Your task to perform on an android device: Go to calendar. Show me events next week Image 0: 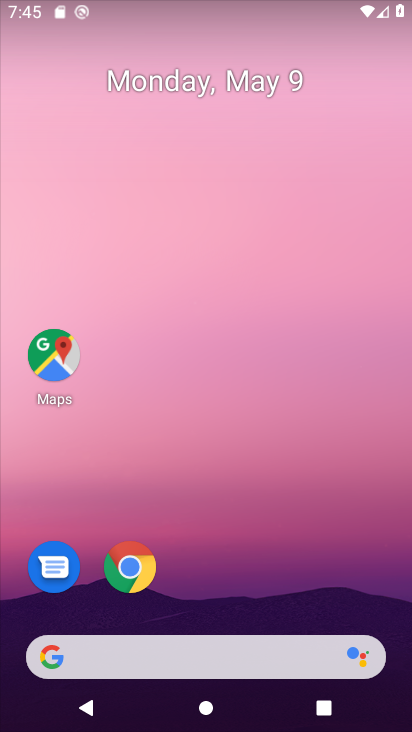
Step 0: drag from (196, 592) to (296, 110)
Your task to perform on an android device: Go to calendar. Show me events next week Image 1: 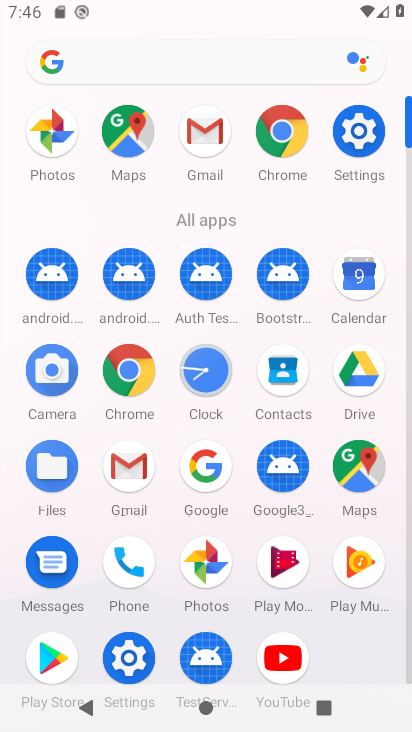
Step 1: click (351, 270)
Your task to perform on an android device: Go to calendar. Show me events next week Image 2: 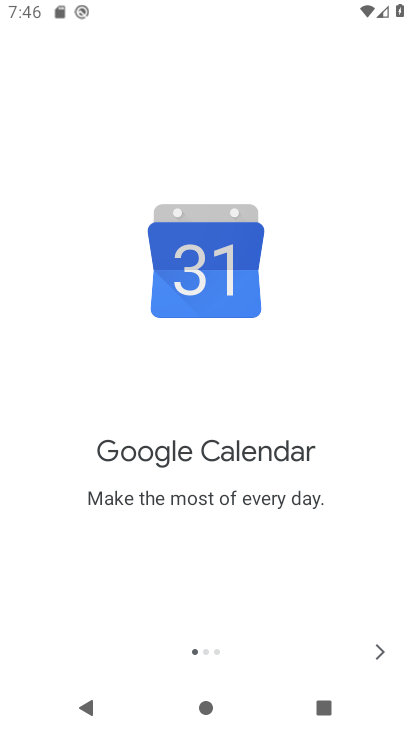
Step 2: click (382, 652)
Your task to perform on an android device: Go to calendar. Show me events next week Image 3: 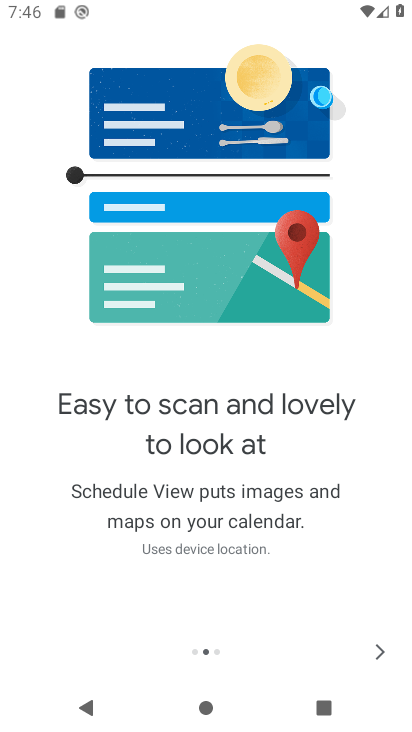
Step 3: click (383, 652)
Your task to perform on an android device: Go to calendar. Show me events next week Image 4: 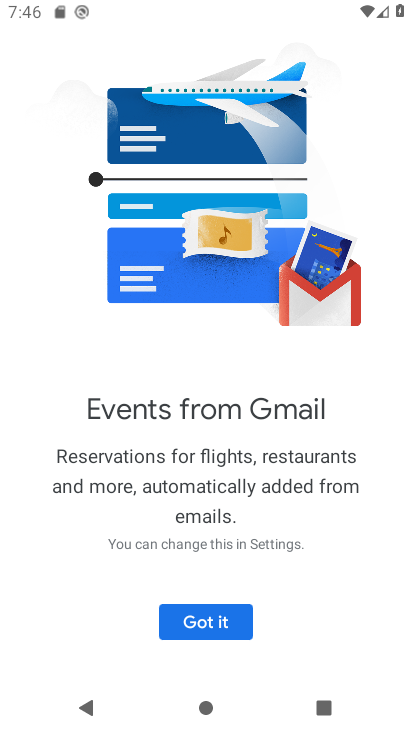
Step 4: click (224, 620)
Your task to perform on an android device: Go to calendar. Show me events next week Image 5: 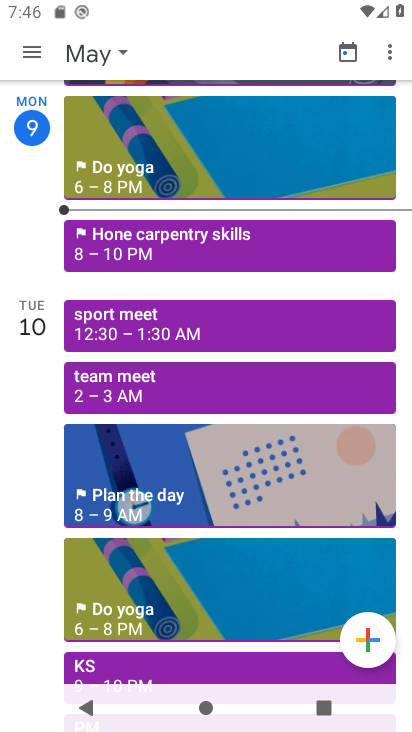
Step 5: click (81, 62)
Your task to perform on an android device: Go to calendar. Show me events next week Image 6: 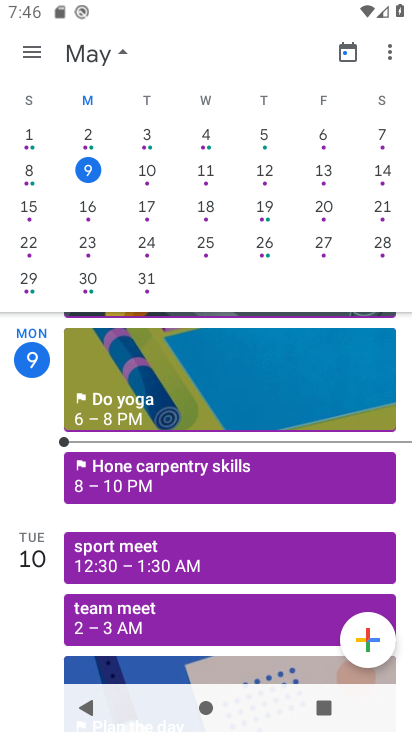
Step 6: click (34, 213)
Your task to perform on an android device: Go to calendar. Show me events next week Image 7: 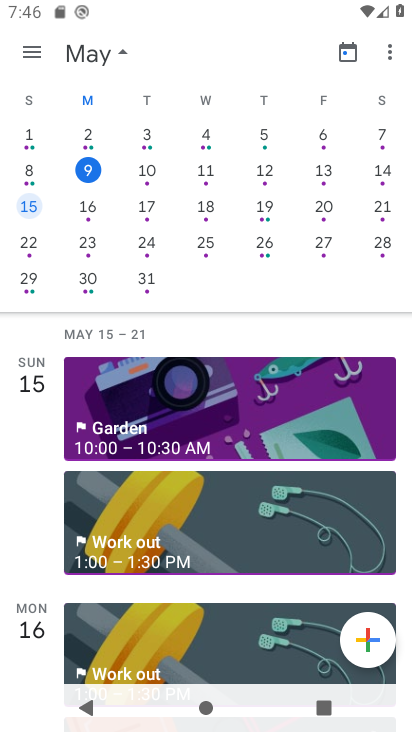
Step 7: click (90, 216)
Your task to perform on an android device: Go to calendar. Show me events next week Image 8: 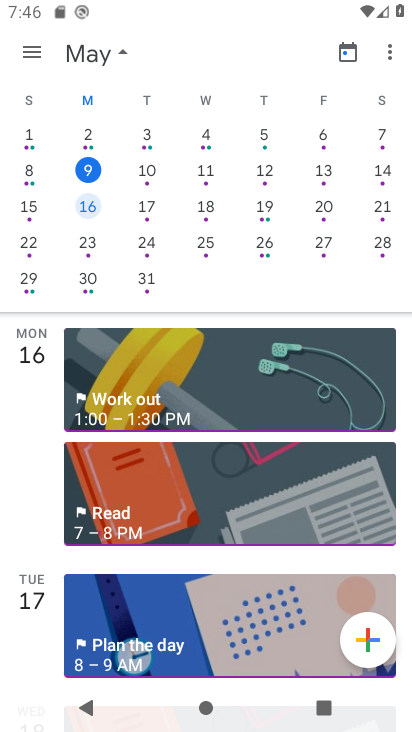
Step 8: click (159, 217)
Your task to perform on an android device: Go to calendar. Show me events next week Image 9: 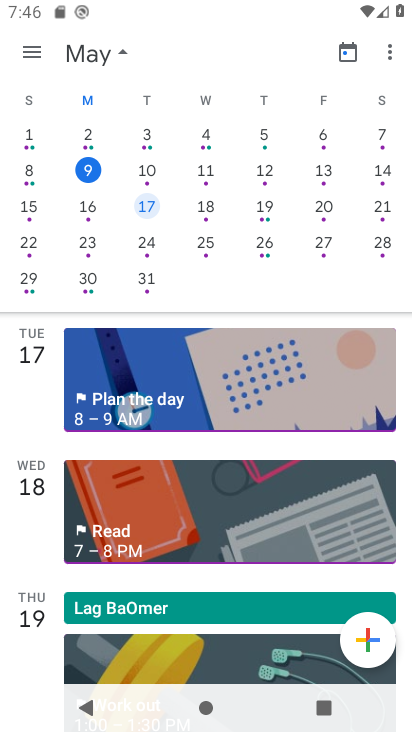
Step 9: click (214, 207)
Your task to perform on an android device: Go to calendar. Show me events next week Image 10: 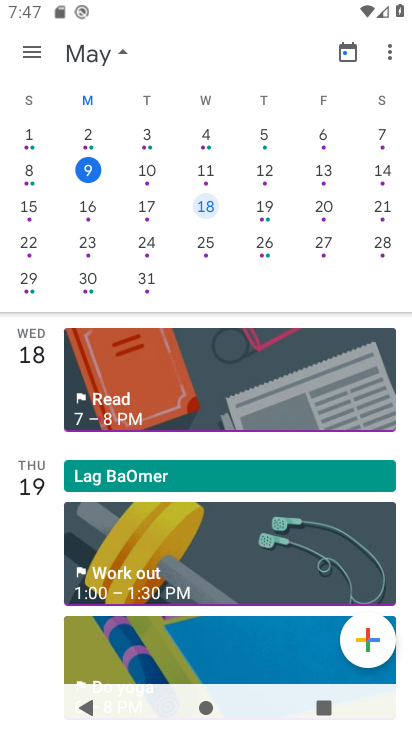
Step 10: click (263, 212)
Your task to perform on an android device: Go to calendar. Show me events next week Image 11: 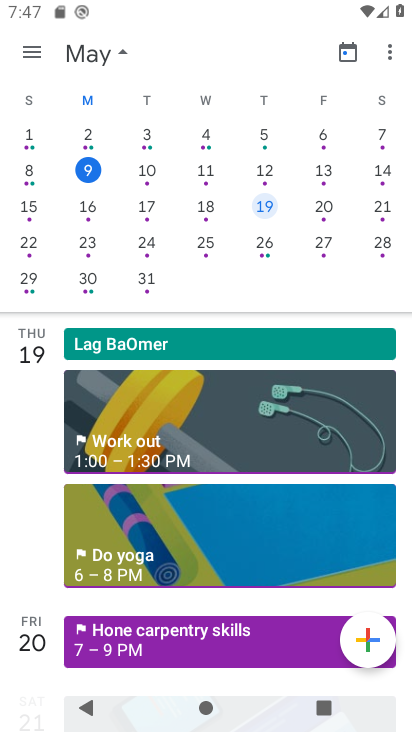
Step 11: click (337, 208)
Your task to perform on an android device: Go to calendar. Show me events next week Image 12: 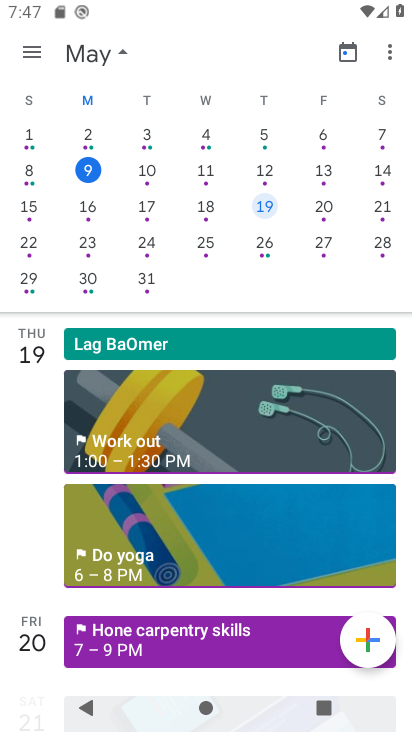
Step 12: click (322, 216)
Your task to perform on an android device: Go to calendar. Show me events next week Image 13: 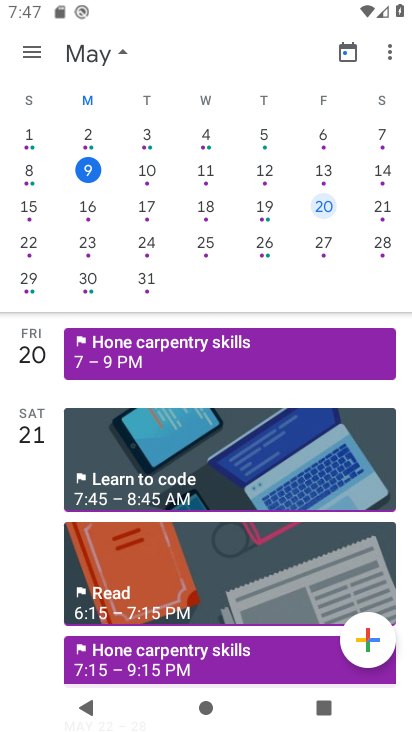
Step 13: click (387, 209)
Your task to perform on an android device: Go to calendar. Show me events next week Image 14: 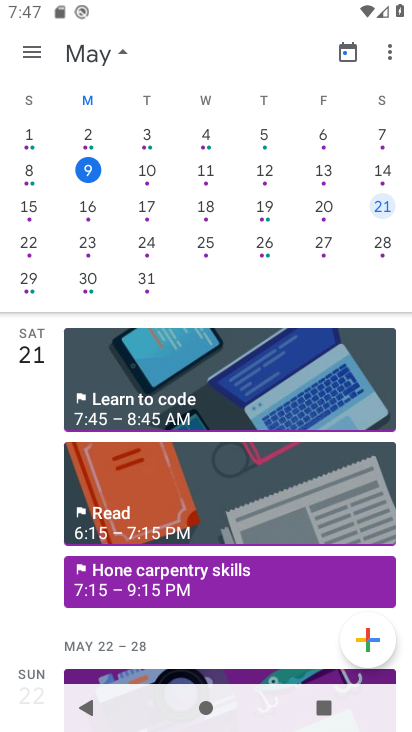
Step 14: task complete